Your task to perform on an android device: search for starred emails in the gmail app Image 0: 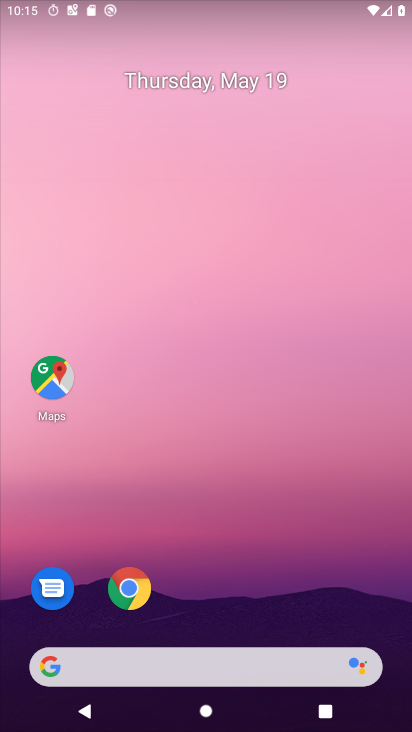
Step 0: press home button
Your task to perform on an android device: search for starred emails in the gmail app Image 1: 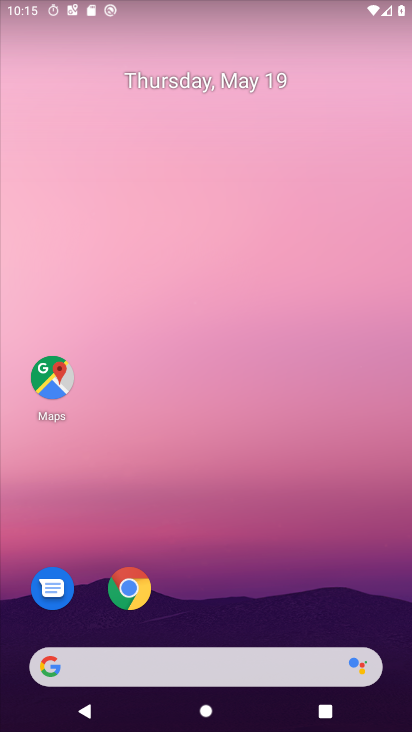
Step 1: drag from (125, 666) to (301, 171)
Your task to perform on an android device: search for starred emails in the gmail app Image 2: 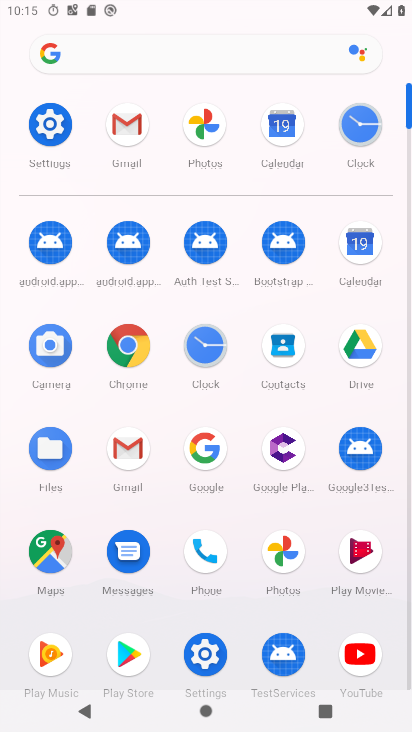
Step 2: click (128, 134)
Your task to perform on an android device: search for starred emails in the gmail app Image 3: 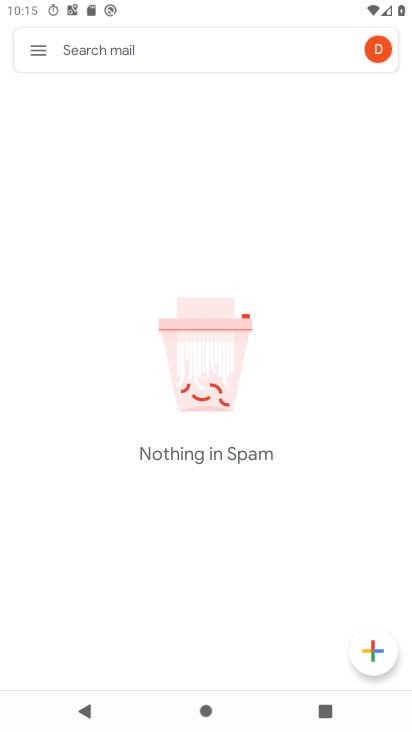
Step 3: click (41, 56)
Your task to perform on an android device: search for starred emails in the gmail app Image 4: 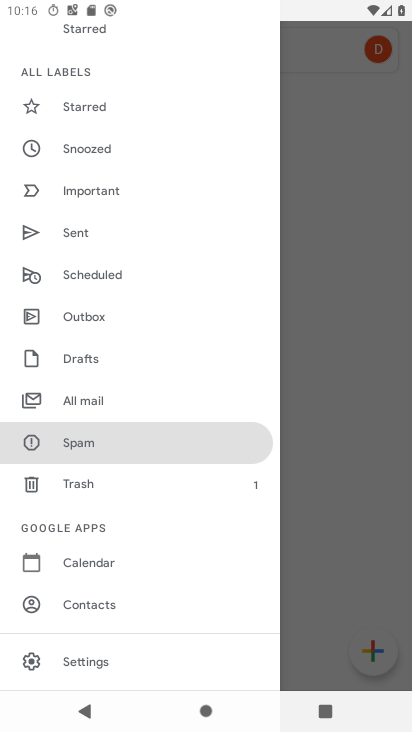
Step 4: click (98, 106)
Your task to perform on an android device: search for starred emails in the gmail app Image 5: 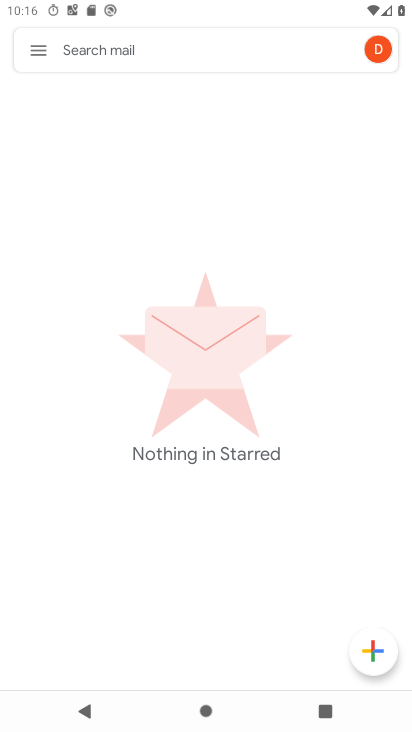
Step 5: task complete